Your task to perform on an android device: What's on my calendar today? Image 0: 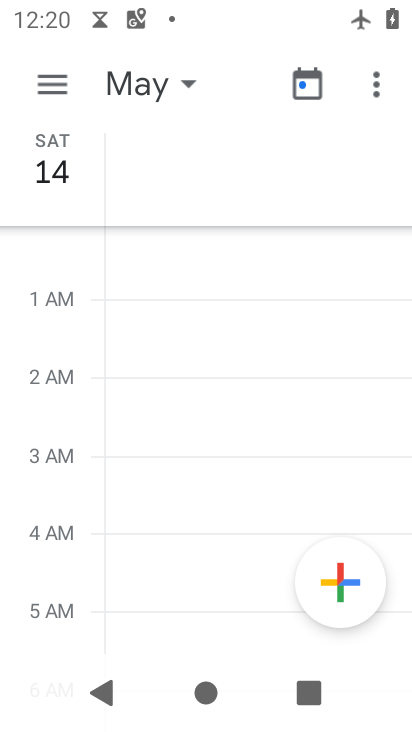
Step 0: press home button
Your task to perform on an android device: What's on my calendar today? Image 1: 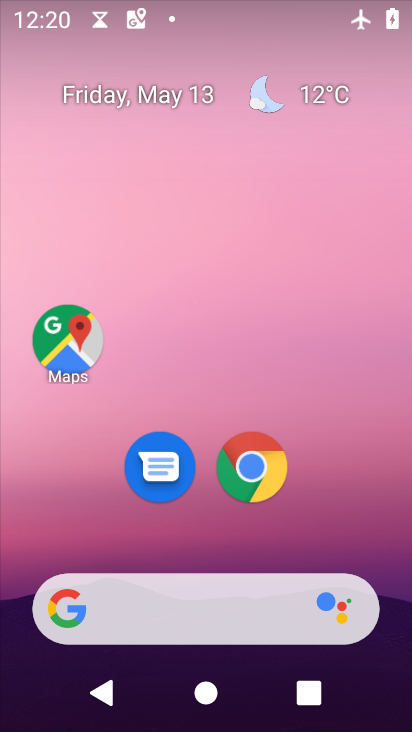
Step 1: click (178, 95)
Your task to perform on an android device: What's on my calendar today? Image 2: 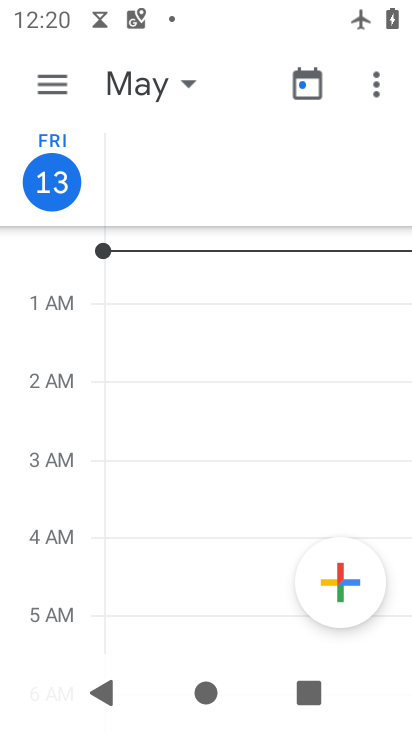
Step 2: task complete